Your task to perform on an android device: Go to notification settings Image 0: 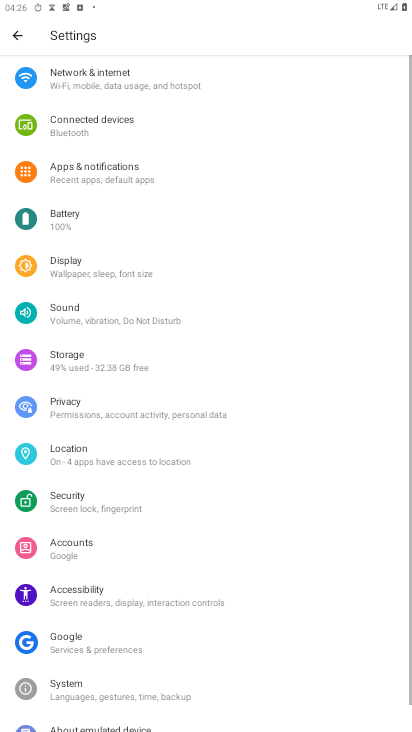
Step 0: press home button
Your task to perform on an android device: Go to notification settings Image 1: 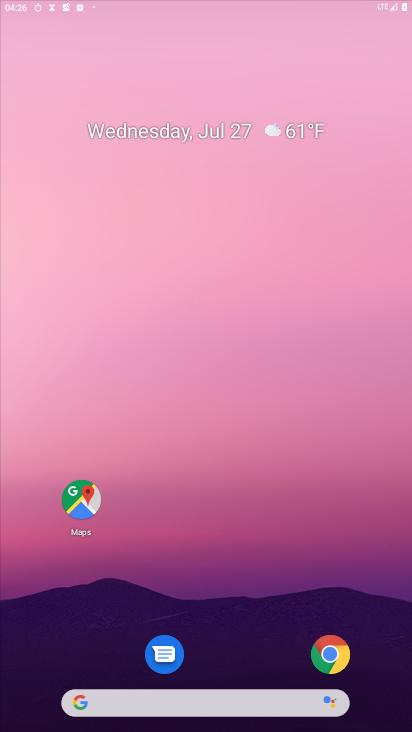
Step 1: drag from (206, 673) to (265, 65)
Your task to perform on an android device: Go to notification settings Image 2: 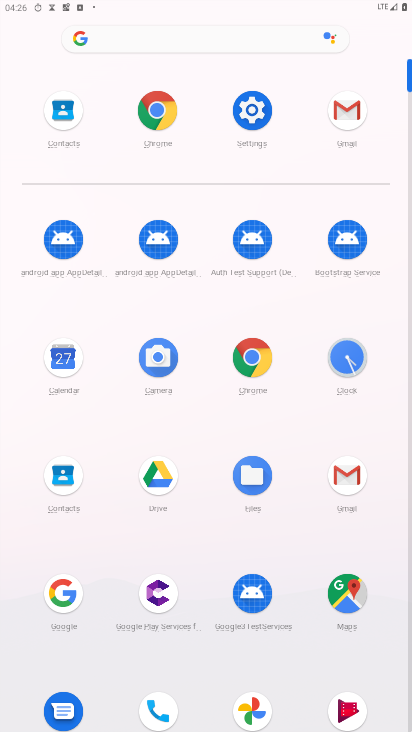
Step 2: click (257, 110)
Your task to perform on an android device: Go to notification settings Image 3: 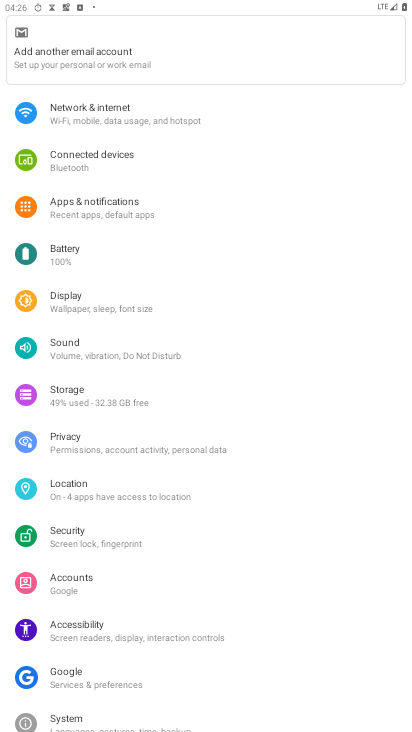
Step 3: click (145, 212)
Your task to perform on an android device: Go to notification settings Image 4: 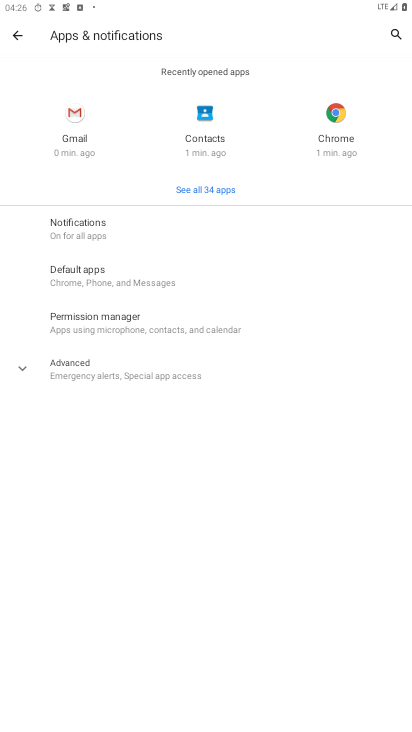
Step 4: task complete